Your task to perform on an android device: Open Google Image 0: 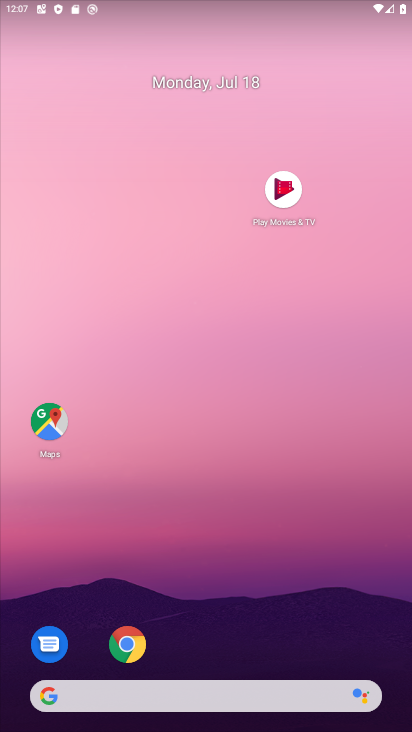
Step 0: drag from (298, 630) to (218, 128)
Your task to perform on an android device: Open Google Image 1: 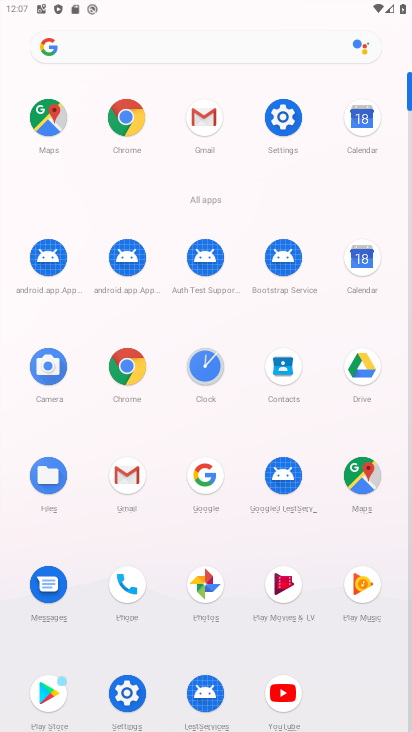
Step 1: click (203, 479)
Your task to perform on an android device: Open Google Image 2: 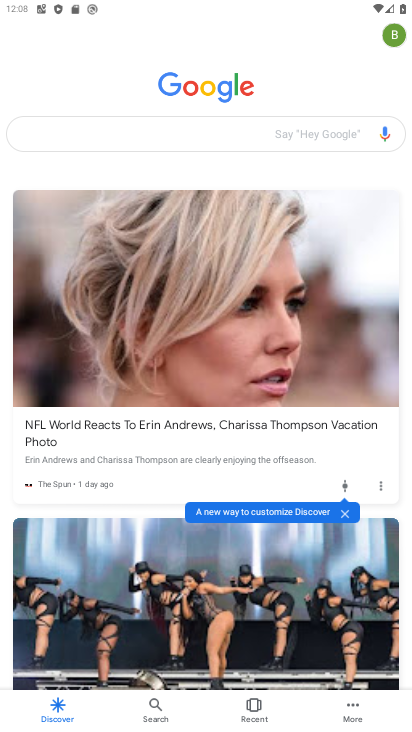
Step 2: task complete